Your task to perform on an android device: Show me popular games on the Play Store Image 0: 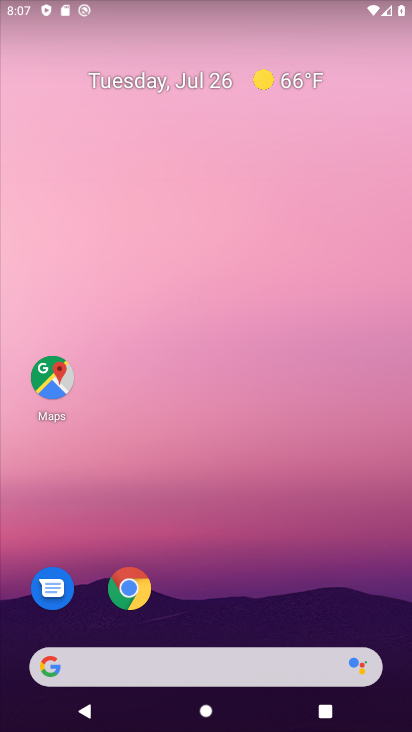
Step 0: drag from (246, 669) to (246, 254)
Your task to perform on an android device: Show me popular games on the Play Store Image 1: 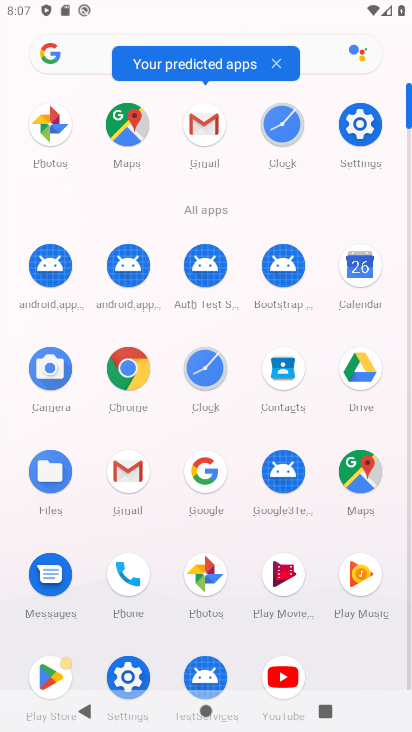
Step 1: click (53, 672)
Your task to perform on an android device: Show me popular games on the Play Store Image 2: 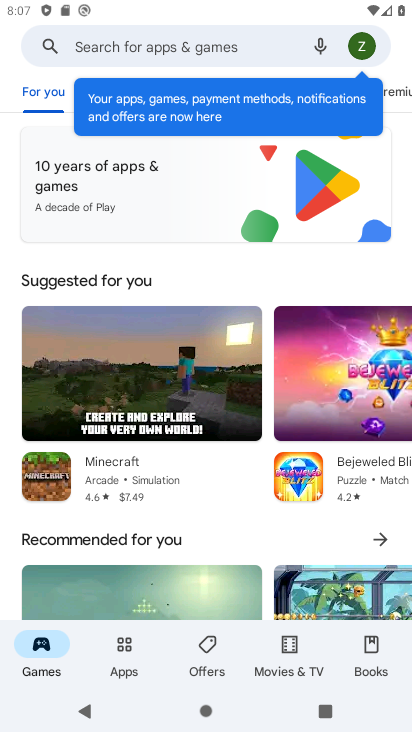
Step 2: click (230, 291)
Your task to perform on an android device: Show me popular games on the Play Store Image 3: 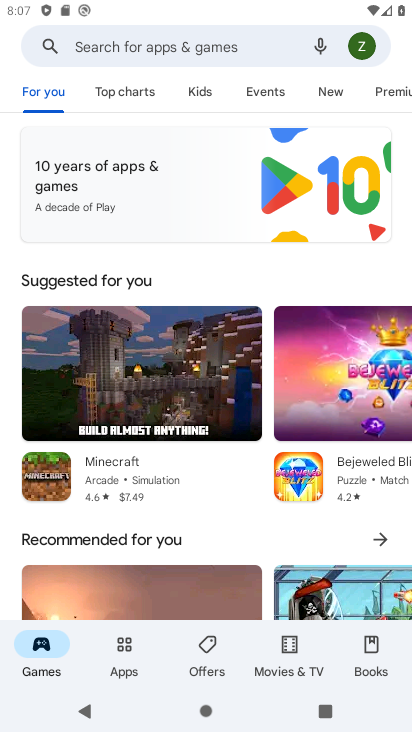
Step 3: drag from (172, 591) to (172, 213)
Your task to perform on an android device: Show me popular games on the Play Store Image 4: 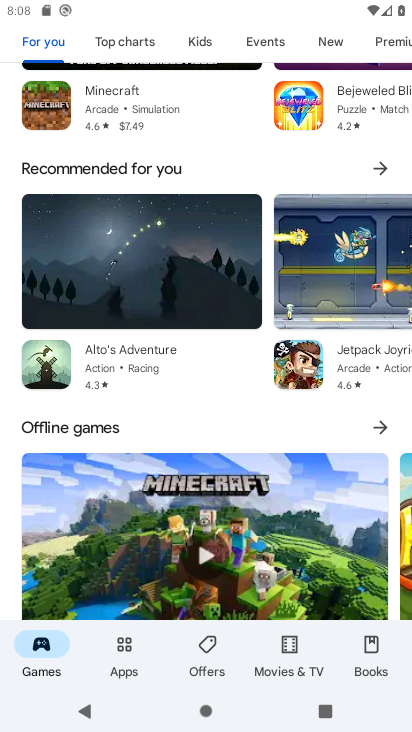
Step 4: drag from (234, 600) to (236, 141)
Your task to perform on an android device: Show me popular games on the Play Store Image 5: 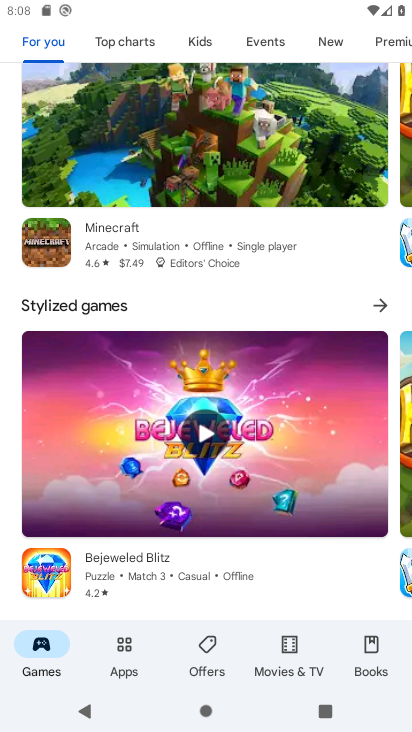
Step 5: drag from (231, 599) to (224, 176)
Your task to perform on an android device: Show me popular games on the Play Store Image 6: 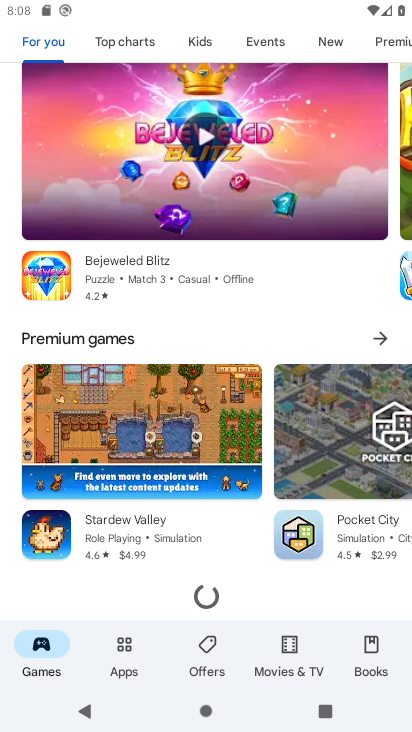
Step 6: drag from (221, 585) to (217, 182)
Your task to perform on an android device: Show me popular games on the Play Store Image 7: 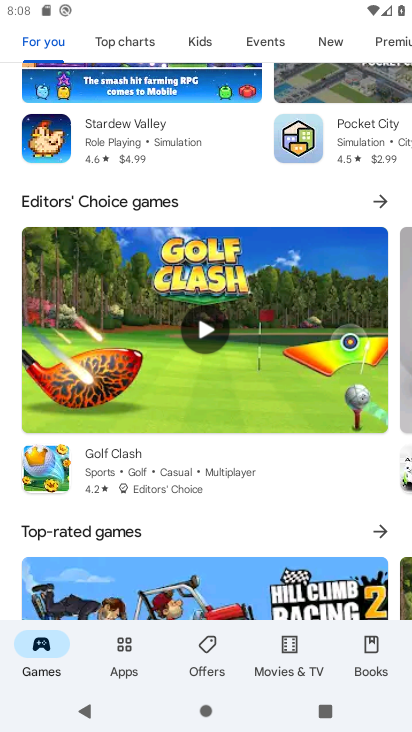
Step 7: drag from (238, 611) to (234, 163)
Your task to perform on an android device: Show me popular games on the Play Store Image 8: 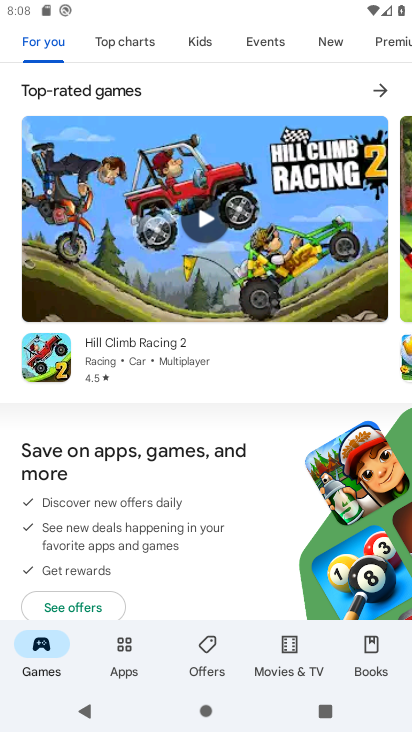
Step 8: drag from (199, 588) to (220, 217)
Your task to perform on an android device: Show me popular games on the Play Store Image 9: 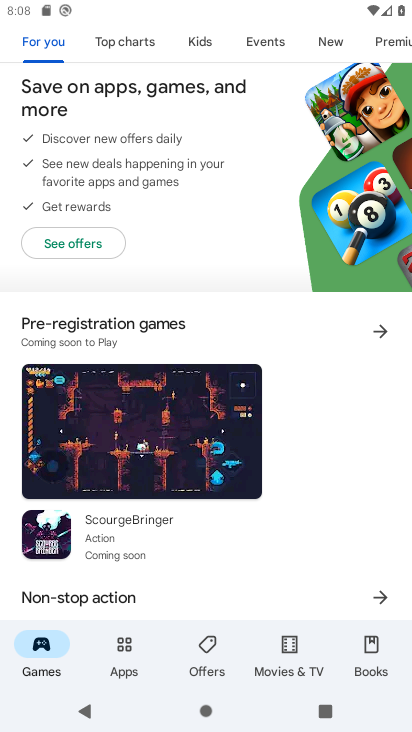
Step 9: drag from (214, 566) to (234, 256)
Your task to perform on an android device: Show me popular games on the Play Store Image 10: 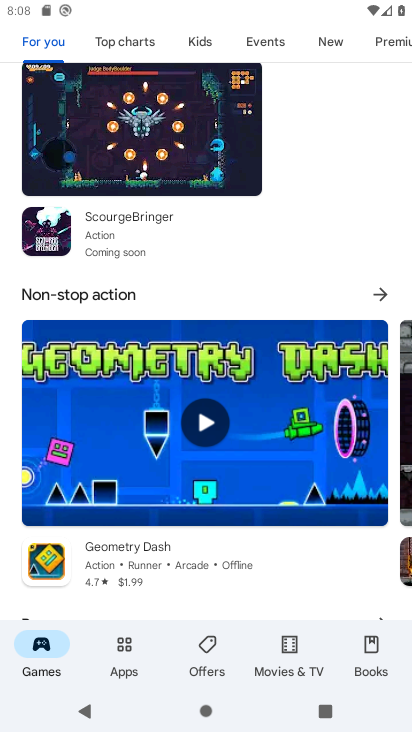
Step 10: drag from (309, 126) to (321, 520)
Your task to perform on an android device: Show me popular games on the Play Store Image 11: 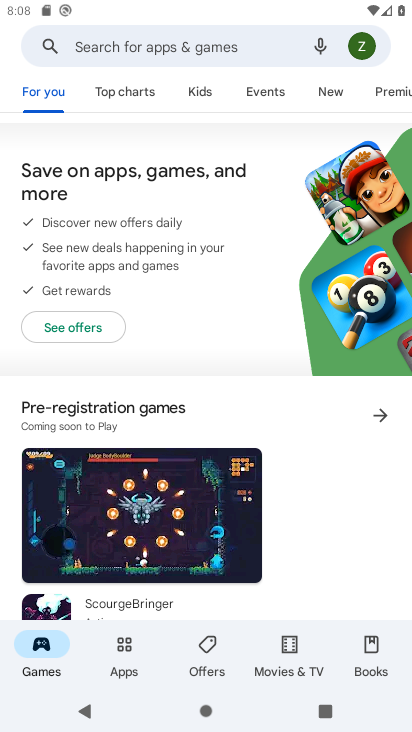
Step 11: drag from (259, 152) to (272, 582)
Your task to perform on an android device: Show me popular games on the Play Store Image 12: 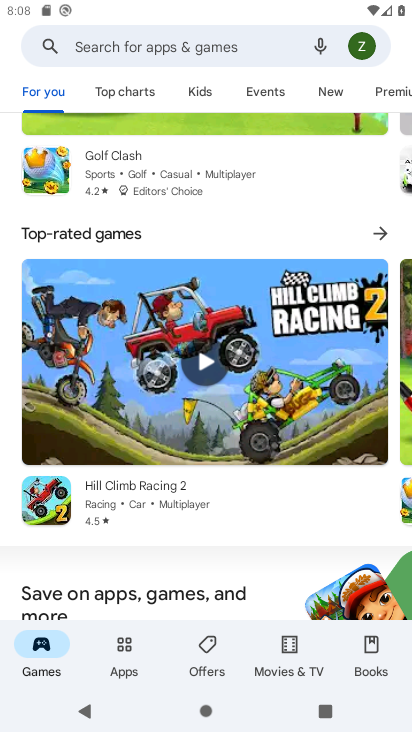
Step 12: drag from (266, 167) to (276, 575)
Your task to perform on an android device: Show me popular games on the Play Store Image 13: 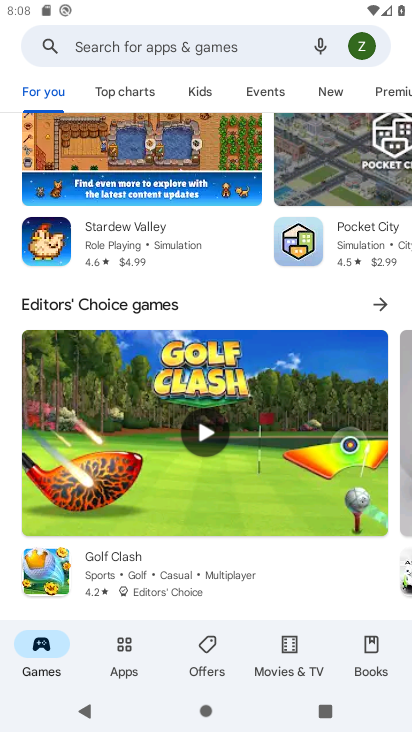
Step 13: drag from (246, 230) to (245, 548)
Your task to perform on an android device: Show me popular games on the Play Store Image 14: 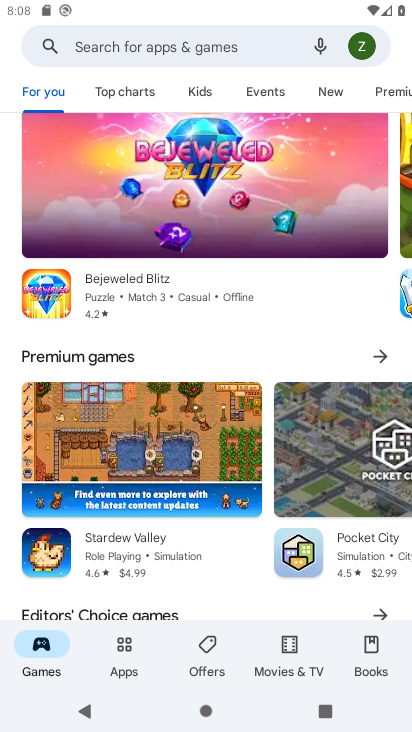
Step 14: drag from (252, 432) to (255, 571)
Your task to perform on an android device: Show me popular games on the Play Store Image 15: 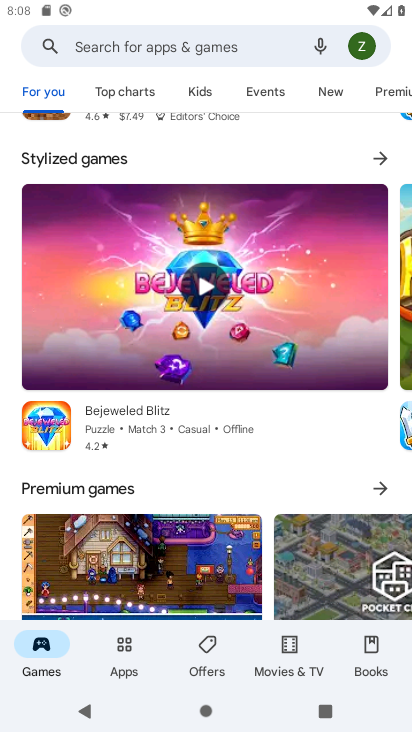
Step 15: drag from (222, 155) to (242, 527)
Your task to perform on an android device: Show me popular games on the Play Store Image 16: 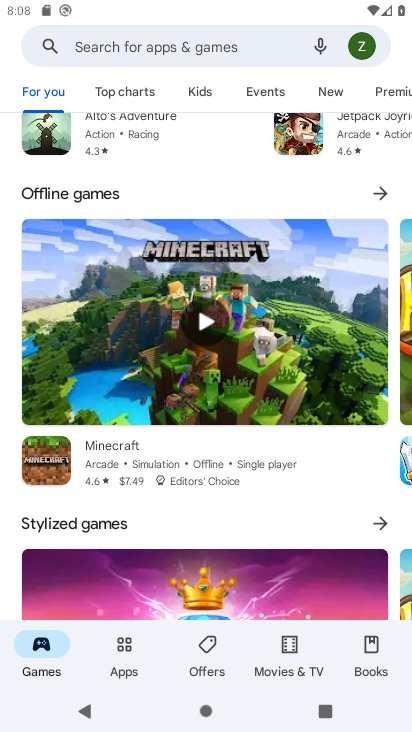
Step 16: drag from (197, 144) to (217, 545)
Your task to perform on an android device: Show me popular games on the Play Store Image 17: 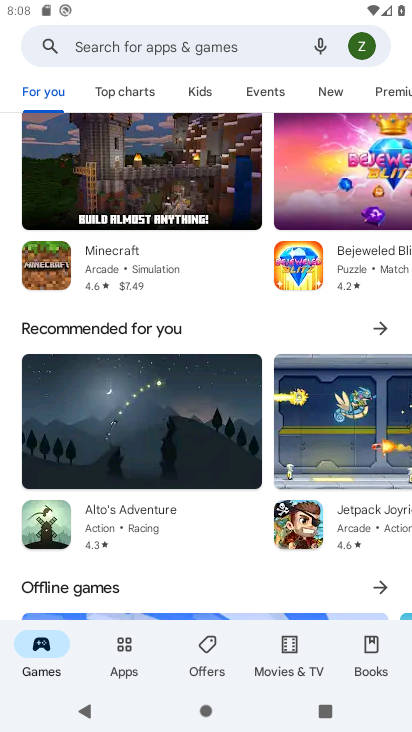
Step 17: drag from (235, 267) to (245, 579)
Your task to perform on an android device: Show me popular games on the Play Store Image 18: 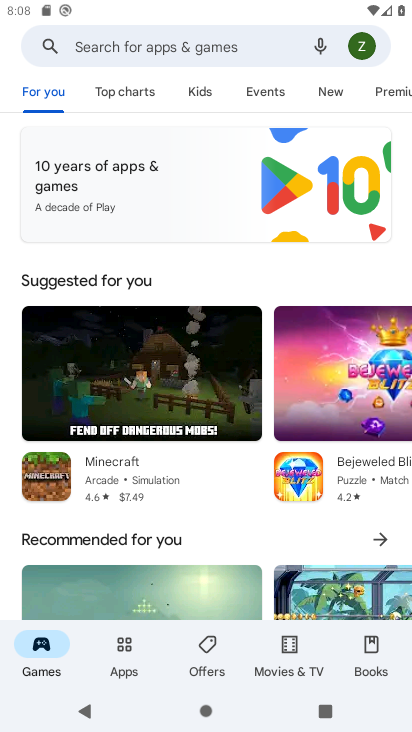
Step 18: drag from (250, 530) to (251, 125)
Your task to perform on an android device: Show me popular games on the Play Store Image 19: 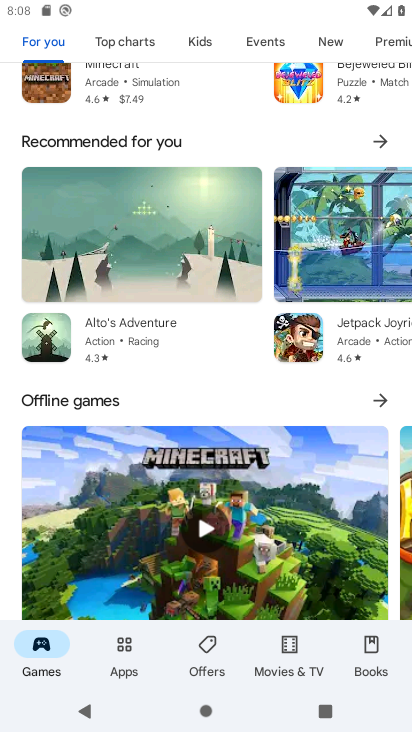
Step 19: drag from (232, 572) to (227, 234)
Your task to perform on an android device: Show me popular games on the Play Store Image 20: 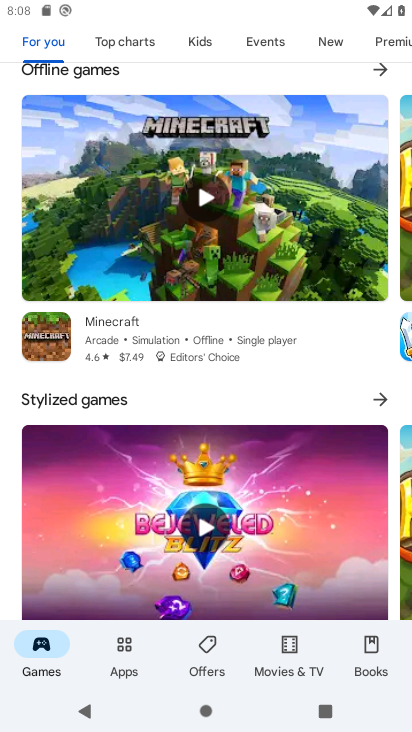
Step 20: drag from (193, 554) to (192, 202)
Your task to perform on an android device: Show me popular games on the Play Store Image 21: 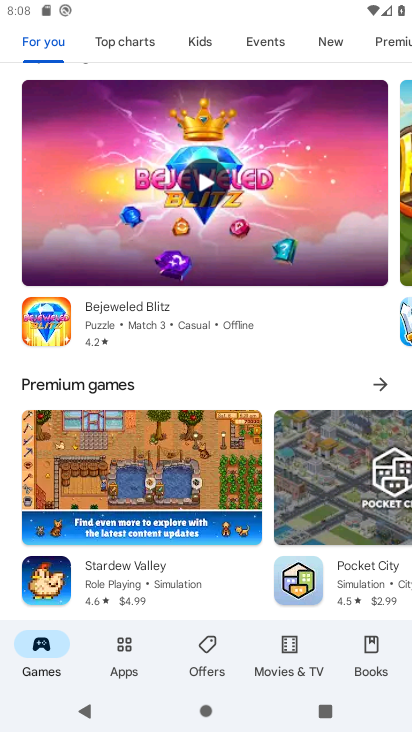
Step 21: drag from (185, 578) to (184, 210)
Your task to perform on an android device: Show me popular games on the Play Store Image 22: 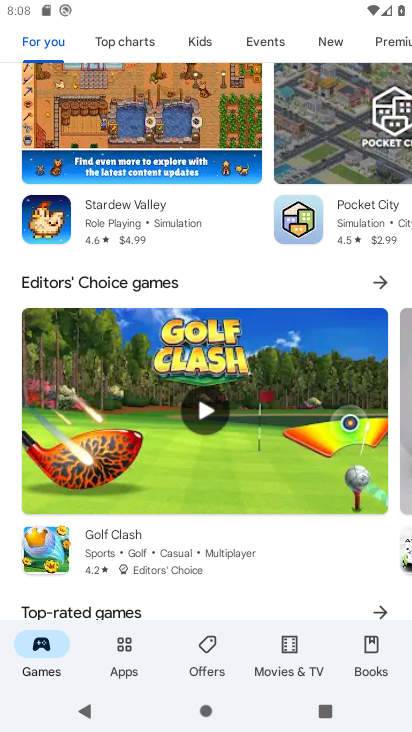
Step 22: drag from (199, 575) to (198, 196)
Your task to perform on an android device: Show me popular games on the Play Store Image 23: 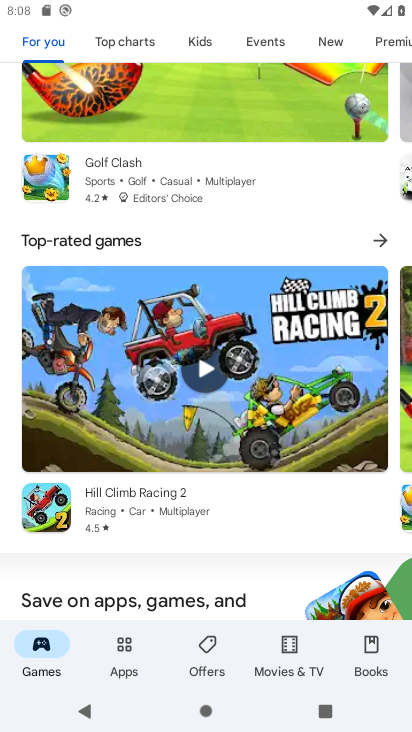
Step 23: drag from (225, 516) to (226, 203)
Your task to perform on an android device: Show me popular games on the Play Store Image 24: 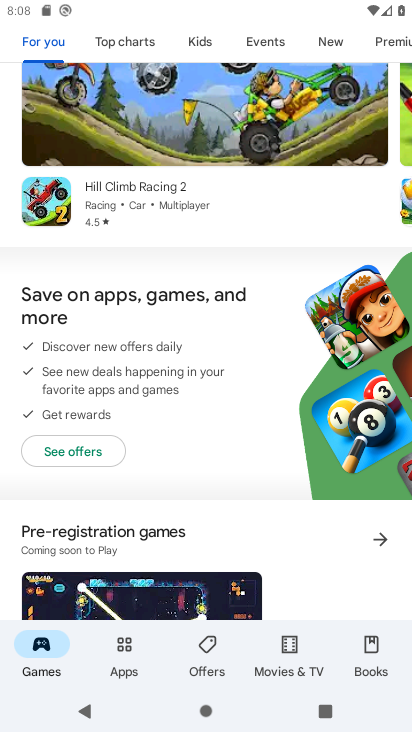
Step 24: drag from (200, 535) to (200, 275)
Your task to perform on an android device: Show me popular games on the Play Store Image 25: 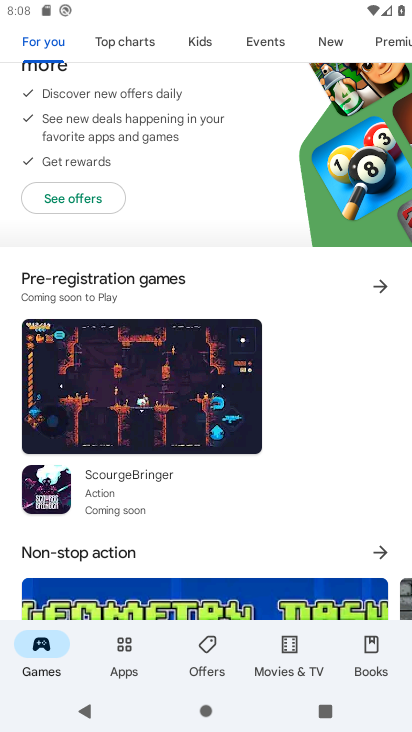
Step 25: drag from (203, 530) to (215, 254)
Your task to perform on an android device: Show me popular games on the Play Store Image 26: 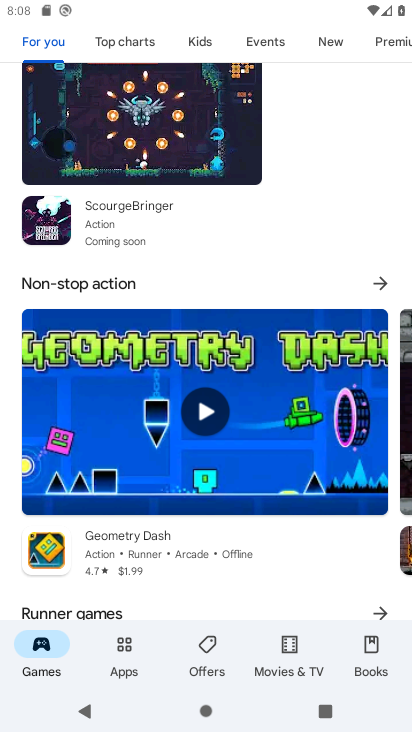
Step 26: drag from (238, 584) to (237, 322)
Your task to perform on an android device: Show me popular games on the Play Store Image 27: 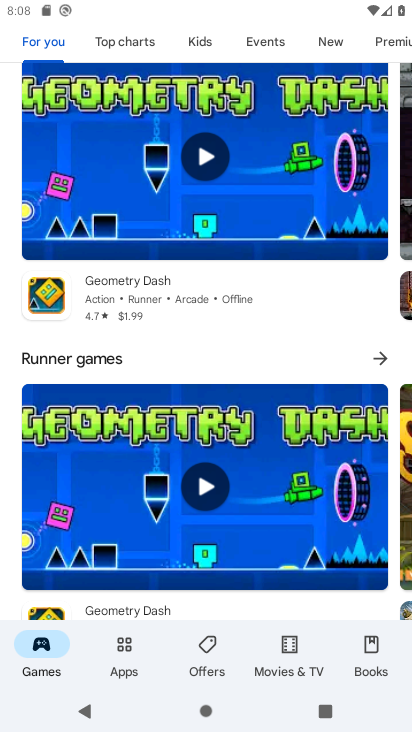
Step 27: drag from (220, 560) to (218, 287)
Your task to perform on an android device: Show me popular games on the Play Store Image 28: 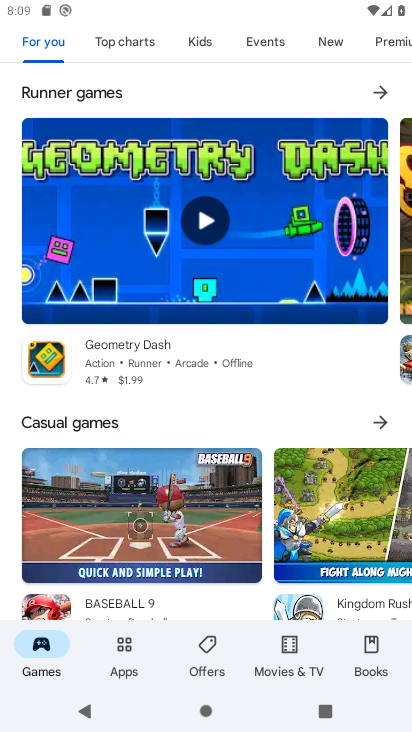
Step 28: drag from (227, 574) to (225, 284)
Your task to perform on an android device: Show me popular games on the Play Store Image 29: 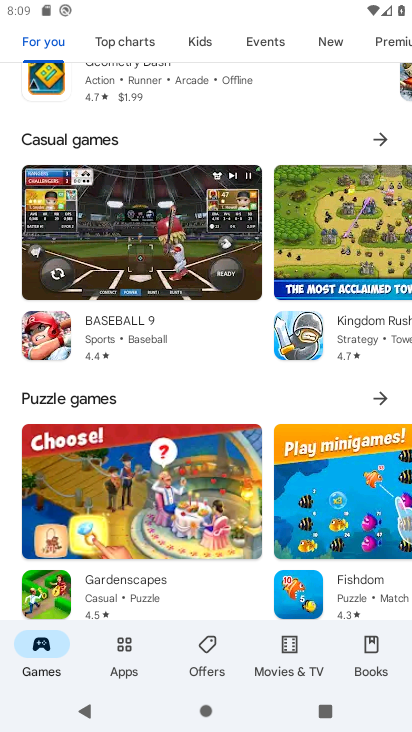
Step 29: drag from (208, 584) to (208, 280)
Your task to perform on an android device: Show me popular games on the Play Store Image 30: 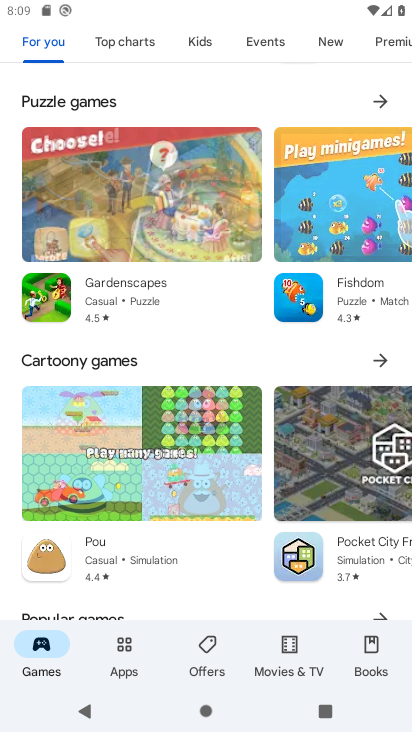
Step 30: drag from (211, 588) to (209, 320)
Your task to perform on an android device: Show me popular games on the Play Store Image 31: 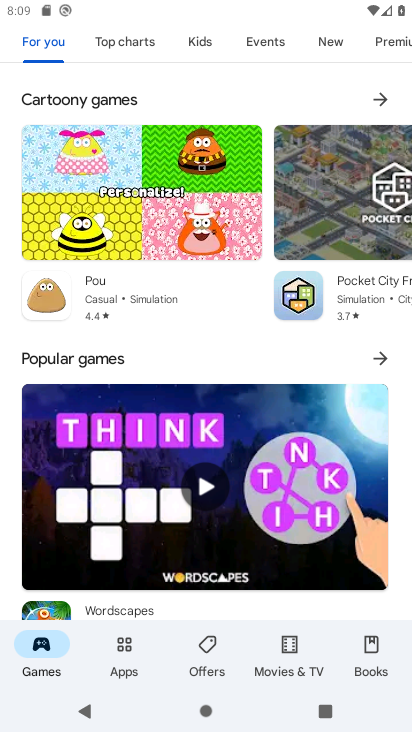
Step 31: click (110, 356)
Your task to perform on an android device: Show me popular games on the Play Store Image 32: 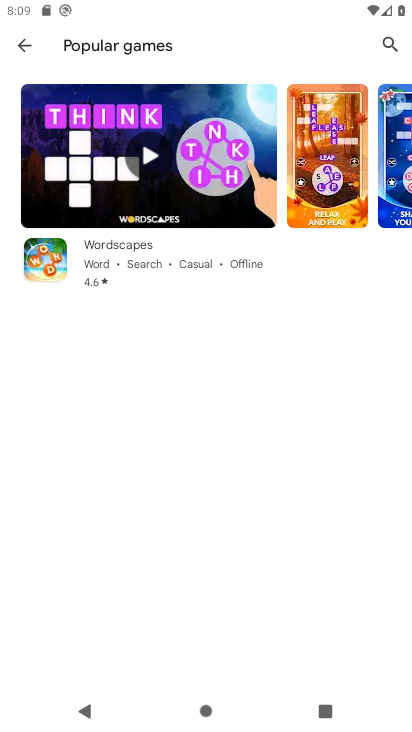
Step 32: task complete